Your task to perform on an android device: Show me popular videos on Youtube Image 0: 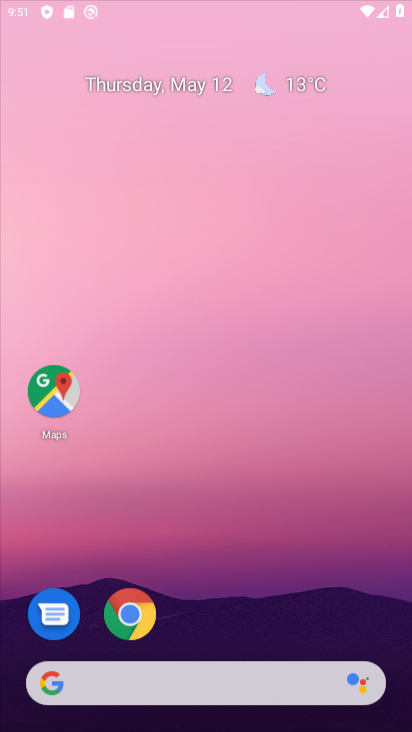
Step 0: click (331, 61)
Your task to perform on an android device: Show me popular videos on Youtube Image 1: 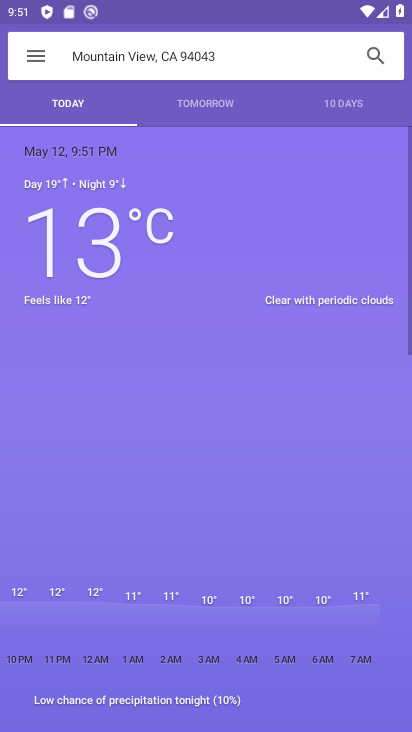
Step 1: press home button
Your task to perform on an android device: Show me popular videos on Youtube Image 2: 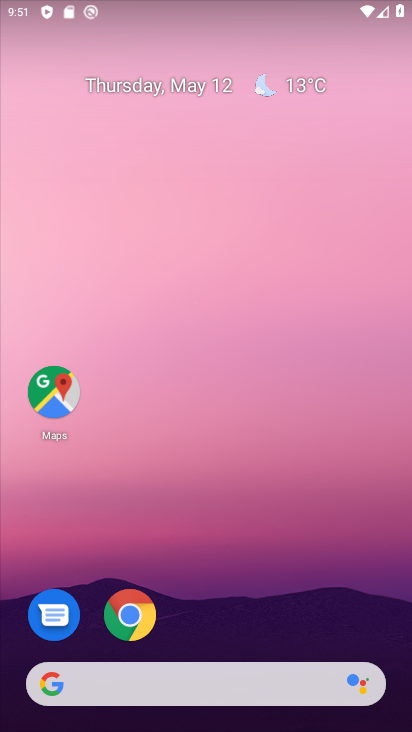
Step 2: drag from (318, 487) to (343, 6)
Your task to perform on an android device: Show me popular videos on Youtube Image 3: 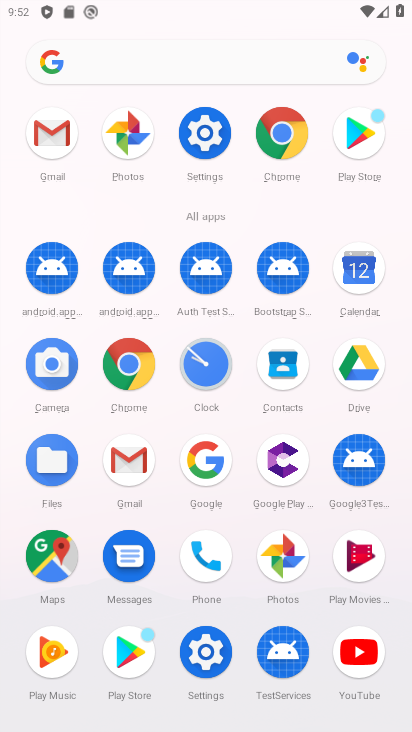
Step 3: click (360, 647)
Your task to perform on an android device: Show me popular videos on Youtube Image 4: 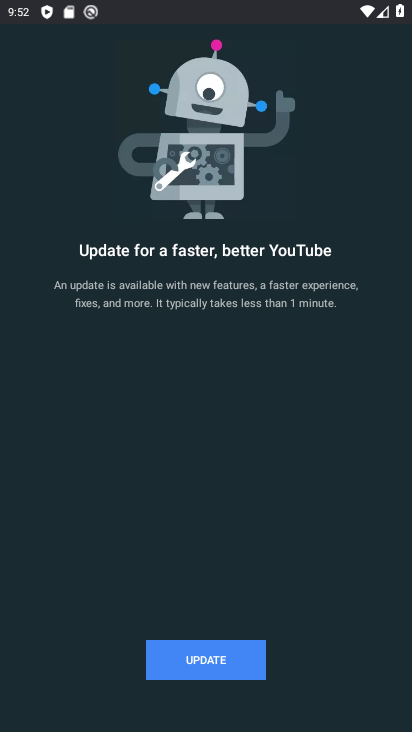
Step 4: click (207, 654)
Your task to perform on an android device: Show me popular videos on Youtube Image 5: 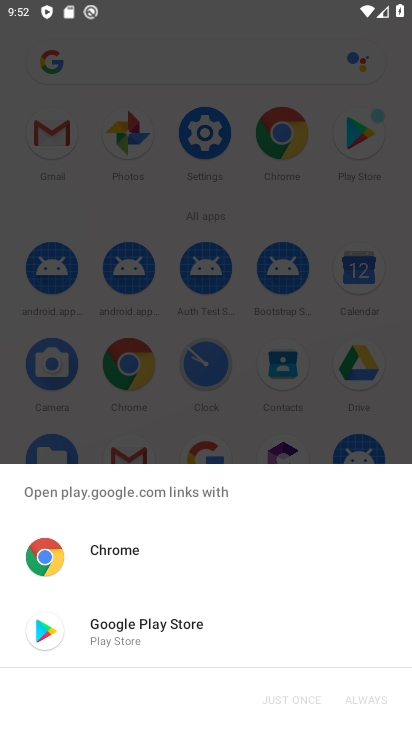
Step 5: click (130, 610)
Your task to perform on an android device: Show me popular videos on Youtube Image 6: 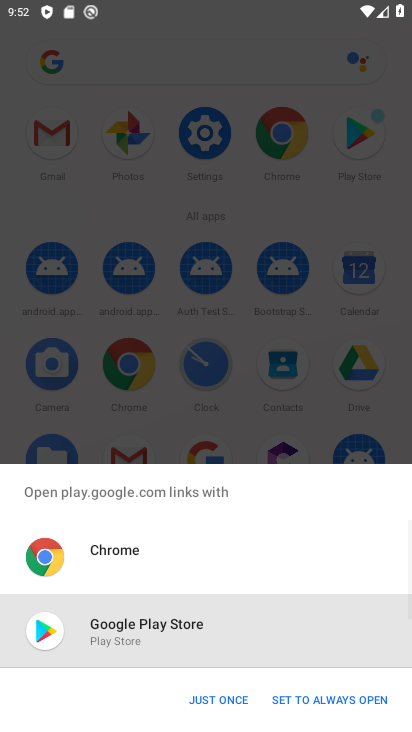
Step 6: click (208, 701)
Your task to perform on an android device: Show me popular videos on Youtube Image 7: 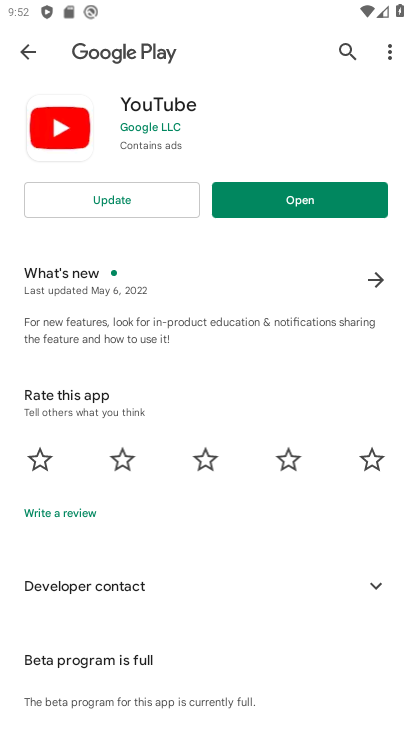
Step 7: click (276, 206)
Your task to perform on an android device: Show me popular videos on Youtube Image 8: 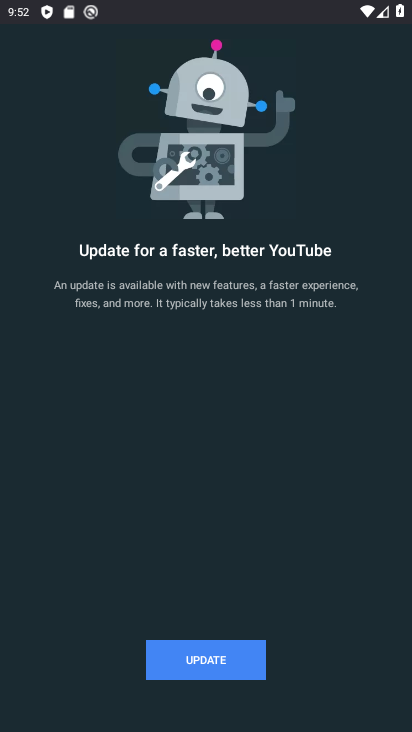
Step 8: click (246, 666)
Your task to perform on an android device: Show me popular videos on Youtube Image 9: 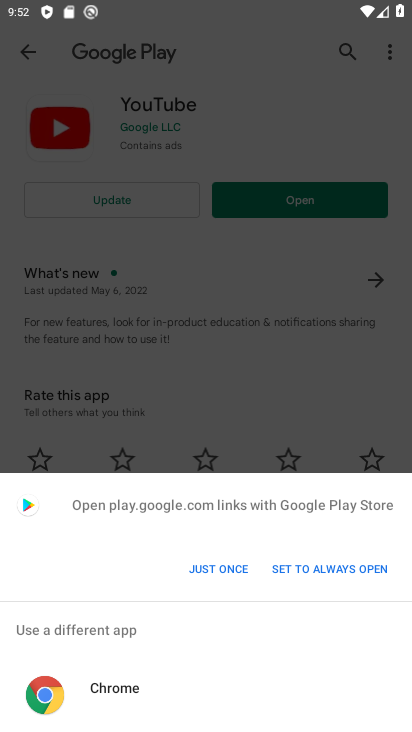
Step 9: drag from (142, 696) to (159, 317)
Your task to perform on an android device: Show me popular videos on Youtube Image 10: 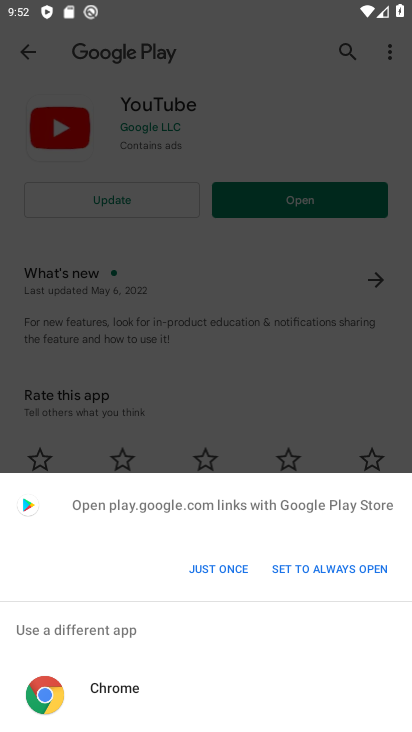
Step 10: click (141, 689)
Your task to perform on an android device: Show me popular videos on Youtube Image 11: 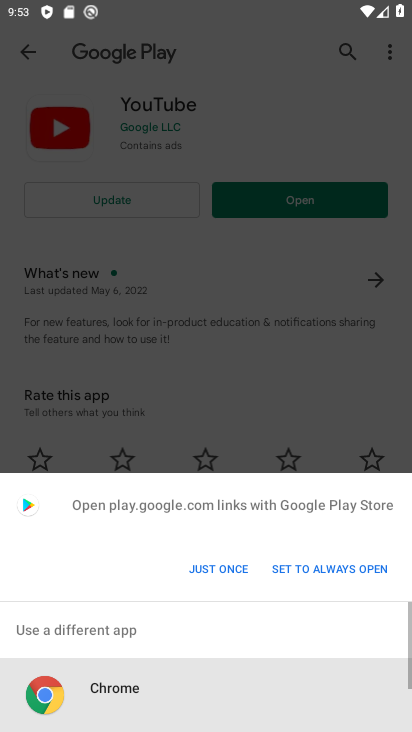
Step 11: click (224, 572)
Your task to perform on an android device: Show me popular videos on Youtube Image 12: 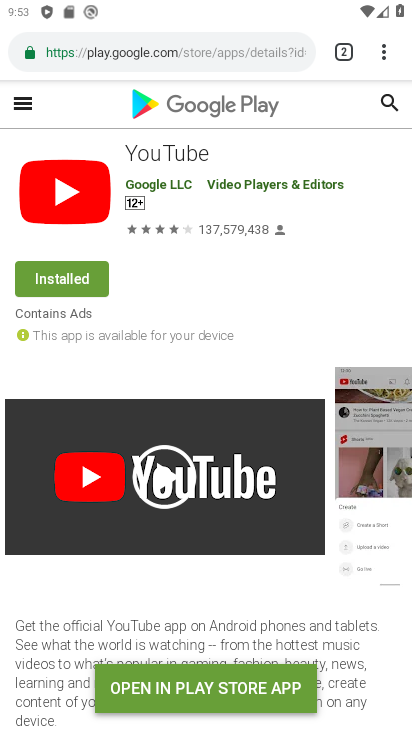
Step 12: click (260, 693)
Your task to perform on an android device: Show me popular videos on Youtube Image 13: 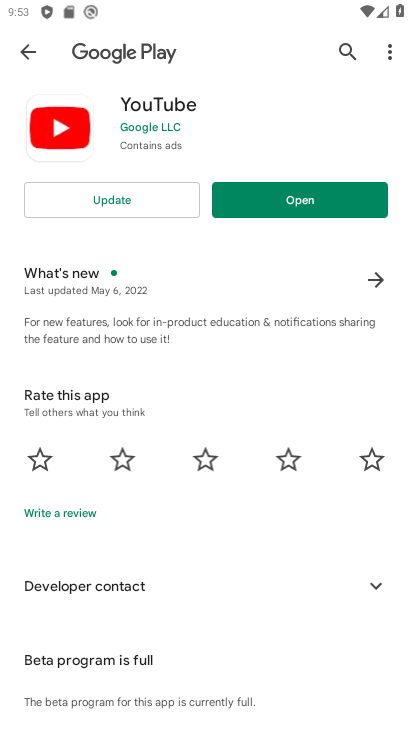
Step 13: click (103, 198)
Your task to perform on an android device: Show me popular videos on Youtube Image 14: 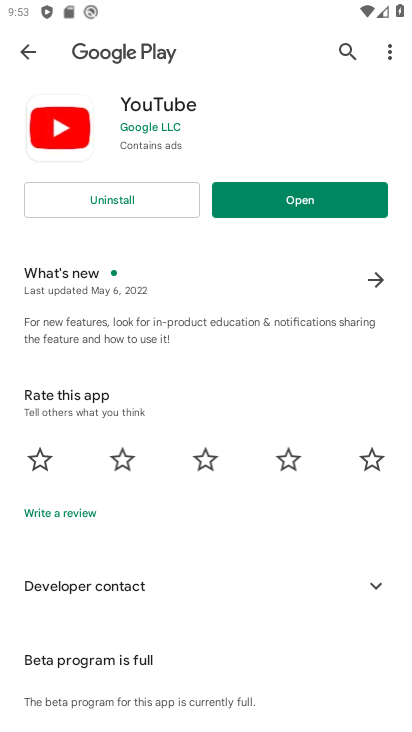
Step 14: click (312, 206)
Your task to perform on an android device: Show me popular videos on Youtube Image 15: 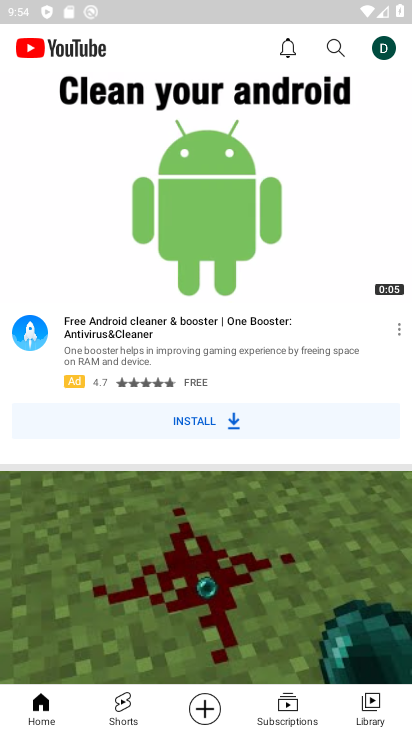
Step 15: click (349, 60)
Your task to perform on an android device: Show me popular videos on Youtube Image 16: 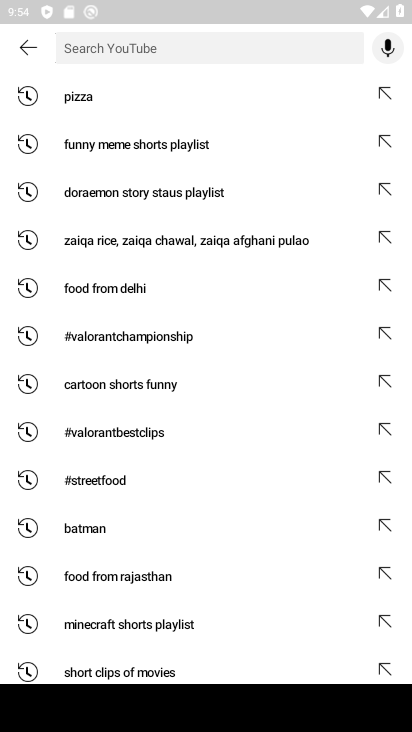
Step 16: type "popular videos"
Your task to perform on an android device: Show me popular videos on Youtube Image 17: 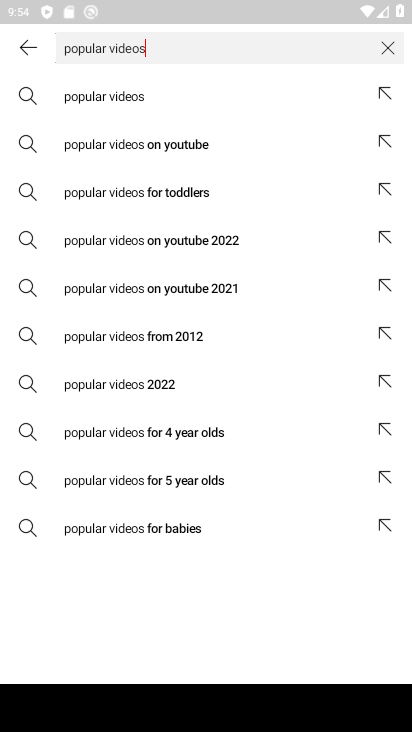
Step 17: click (90, 91)
Your task to perform on an android device: Show me popular videos on Youtube Image 18: 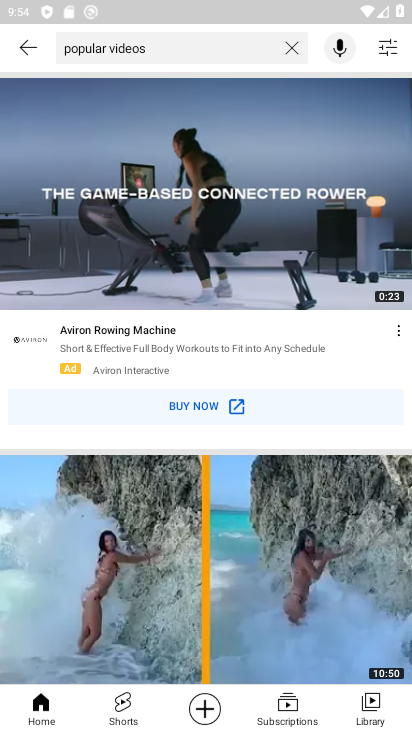
Step 18: task complete